Your task to perform on an android device: Search for vegetarian restaurants on Maps Image 0: 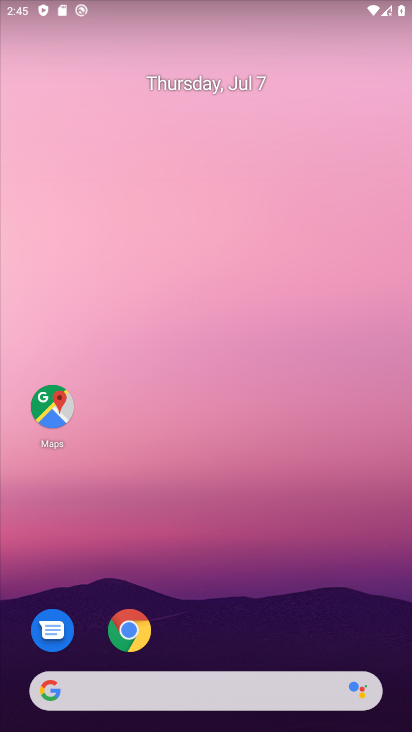
Step 0: drag from (270, 661) to (267, 439)
Your task to perform on an android device: Search for vegetarian restaurants on Maps Image 1: 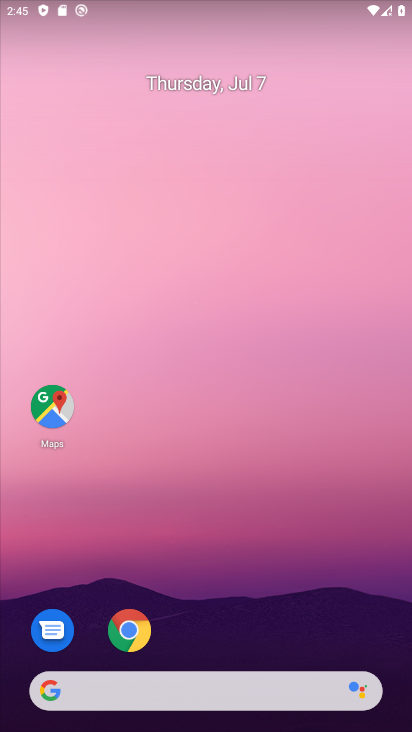
Step 1: drag from (259, 608) to (238, 311)
Your task to perform on an android device: Search for vegetarian restaurants on Maps Image 2: 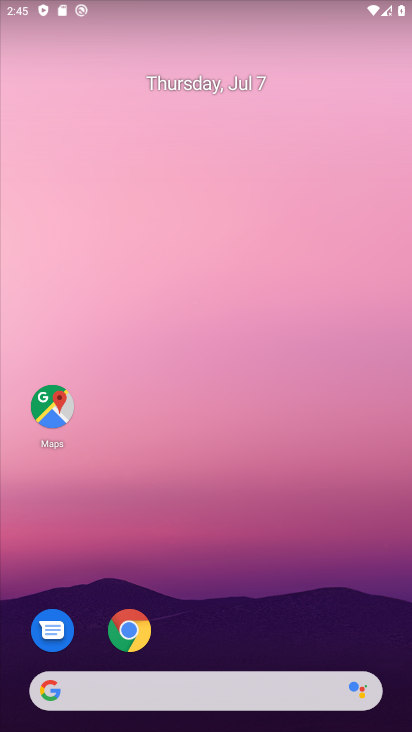
Step 2: drag from (219, 672) to (165, 331)
Your task to perform on an android device: Search for vegetarian restaurants on Maps Image 3: 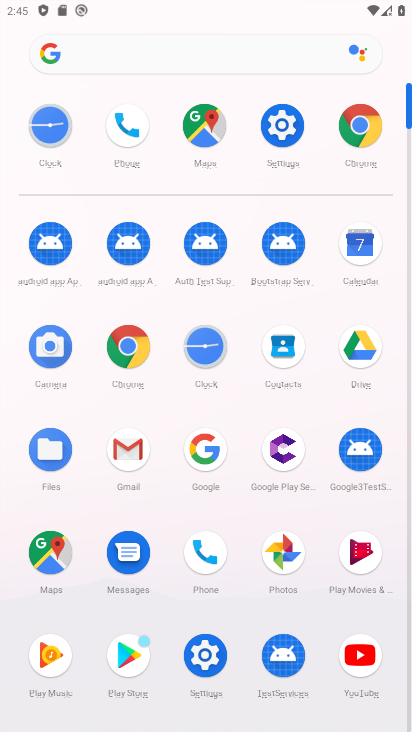
Step 3: click (57, 545)
Your task to perform on an android device: Search for vegetarian restaurants on Maps Image 4: 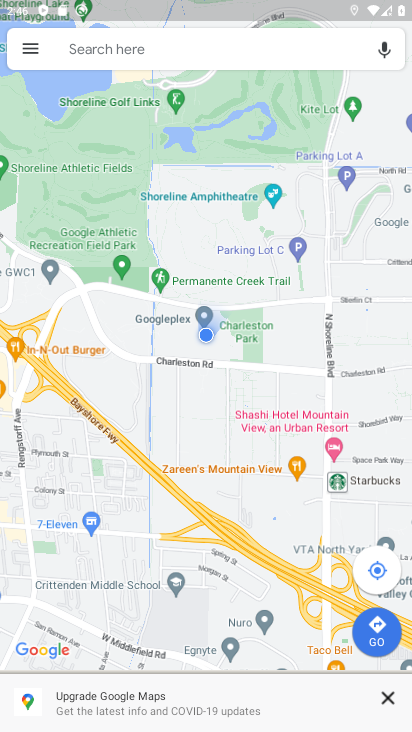
Step 4: click (226, 33)
Your task to perform on an android device: Search for vegetarian restaurants on Maps Image 5: 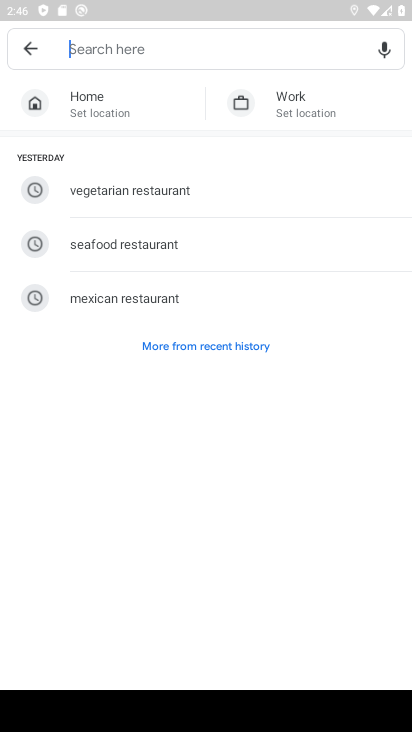
Step 5: type "vegetarian restaurants  "
Your task to perform on an android device: Search for vegetarian restaurants on Maps Image 6: 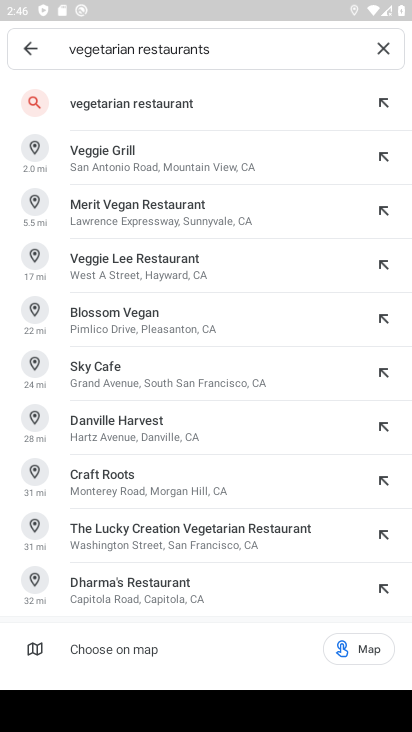
Step 6: click (99, 99)
Your task to perform on an android device: Search for vegetarian restaurants on Maps Image 7: 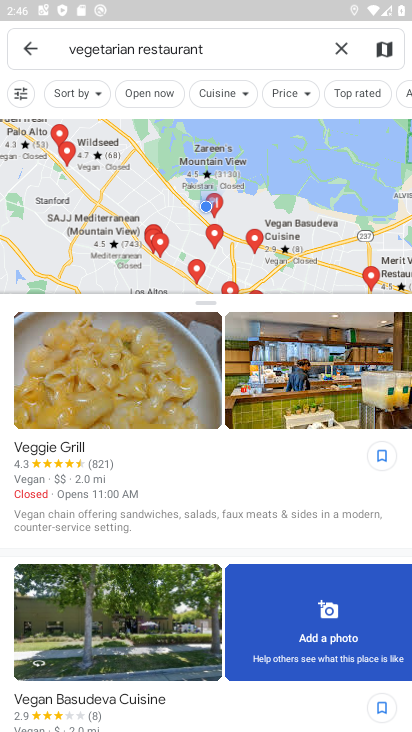
Step 7: task complete